Your task to perform on an android device: open a bookmark in the chrome app Image 0: 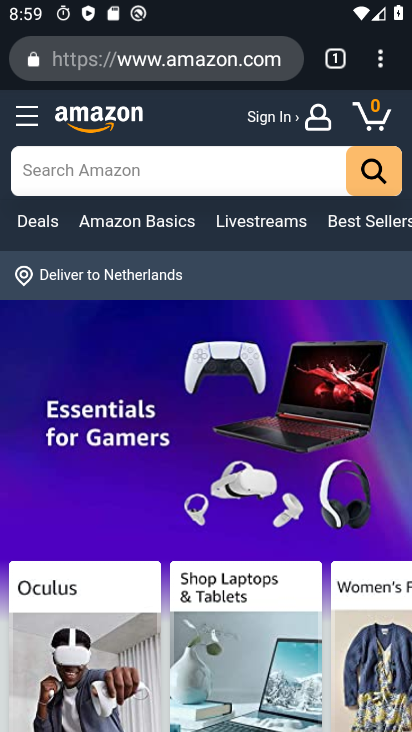
Step 0: drag from (374, 61) to (277, 224)
Your task to perform on an android device: open a bookmark in the chrome app Image 1: 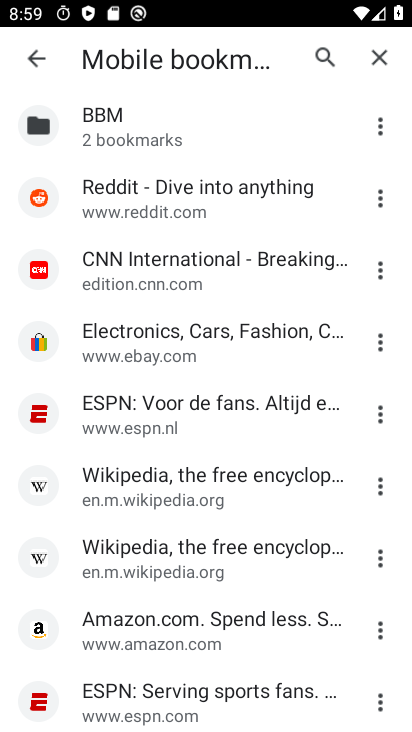
Step 1: drag from (199, 645) to (236, 179)
Your task to perform on an android device: open a bookmark in the chrome app Image 2: 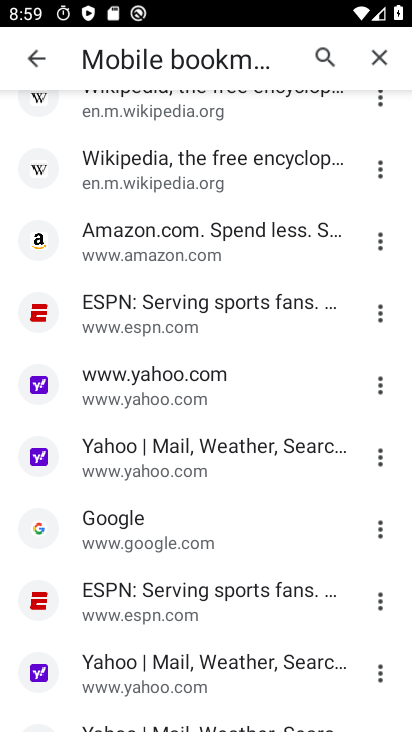
Step 2: click (175, 177)
Your task to perform on an android device: open a bookmark in the chrome app Image 3: 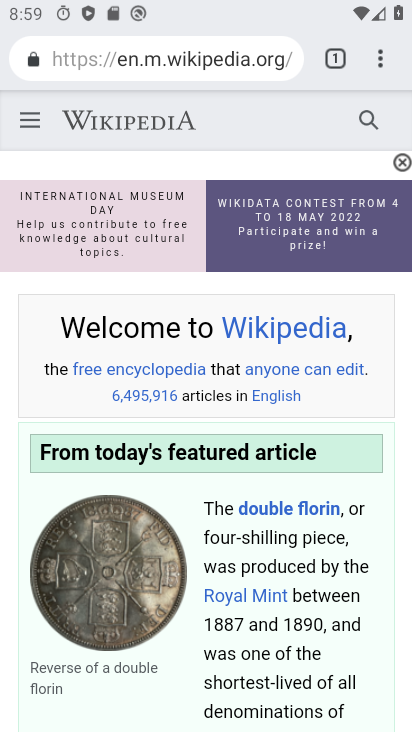
Step 3: task complete